Your task to perform on an android device: refresh tabs in the chrome app Image 0: 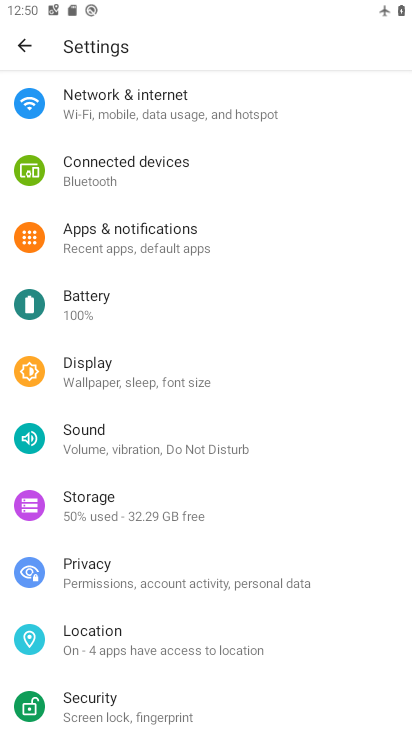
Step 0: press home button
Your task to perform on an android device: refresh tabs in the chrome app Image 1: 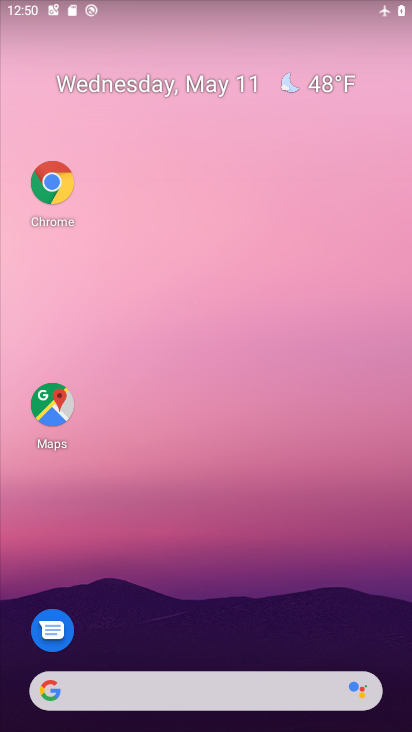
Step 1: click (67, 187)
Your task to perform on an android device: refresh tabs in the chrome app Image 2: 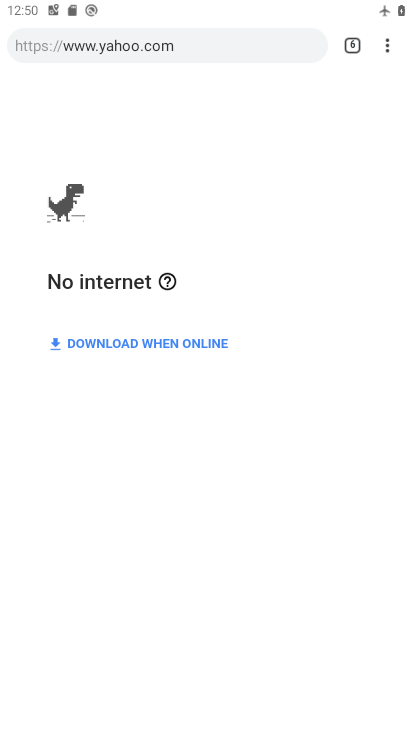
Step 2: click (372, 42)
Your task to perform on an android device: refresh tabs in the chrome app Image 3: 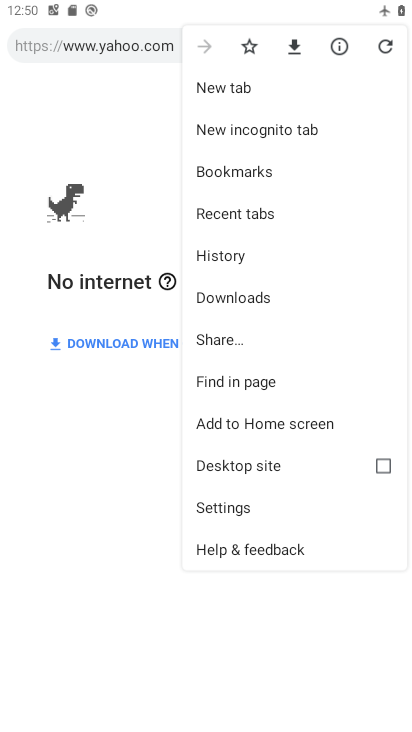
Step 3: click (380, 45)
Your task to perform on an android device: refresh tabs in the chrome app Image 4: 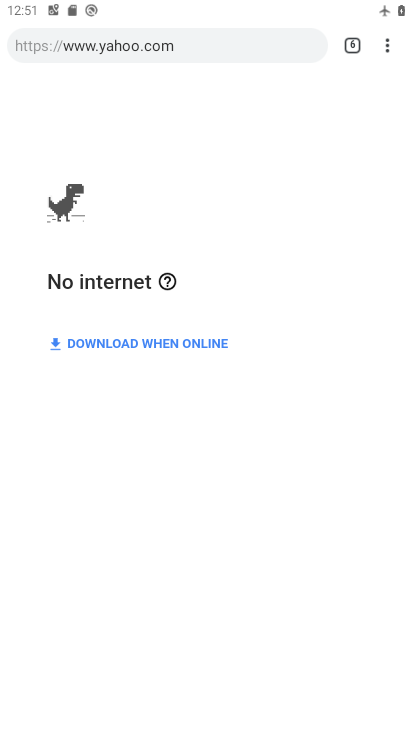
Step 4: task complete